Your task to perform on an android device: Search for pizza restaurants on Maps Image 0: 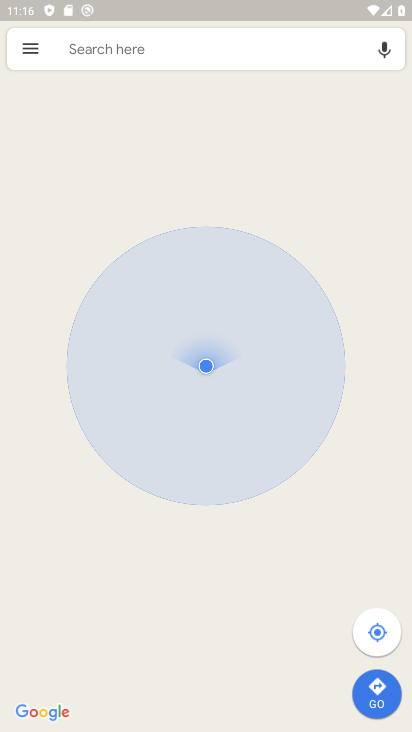
Step 0: click (180, 42)
Your task to perform on an android device: Search for pizza restaurants on Maps Image 1: 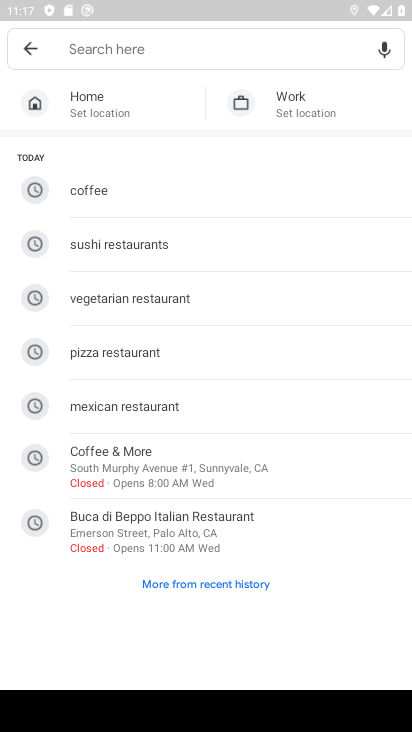
Step 1: type "pizza restaurants"
Your task to perform on an android device: Search for pizza restaurants on Maps Image 2: 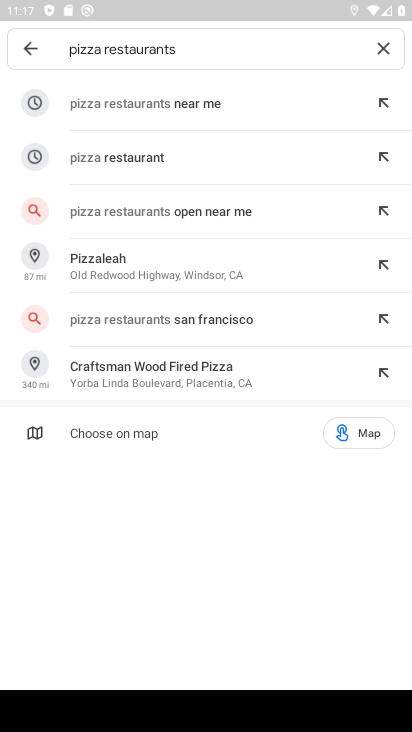
Step 2: click (202, 163)
Your task to perform on an android device: Search for pizza restaurants on Maps Image 3: 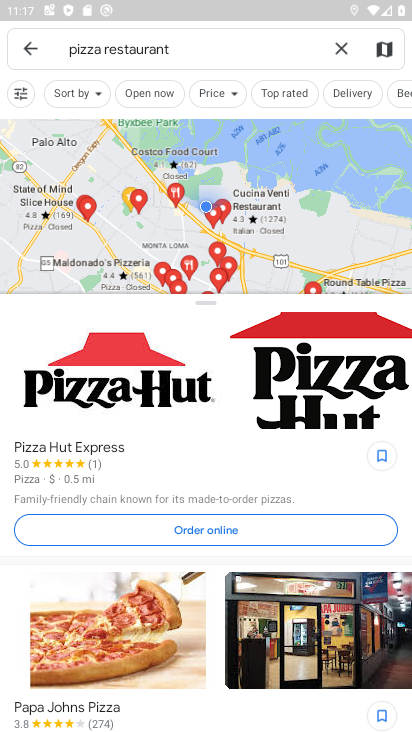
Step 3: task complete